Your task to perform on an android device: Go to settings Image 0: 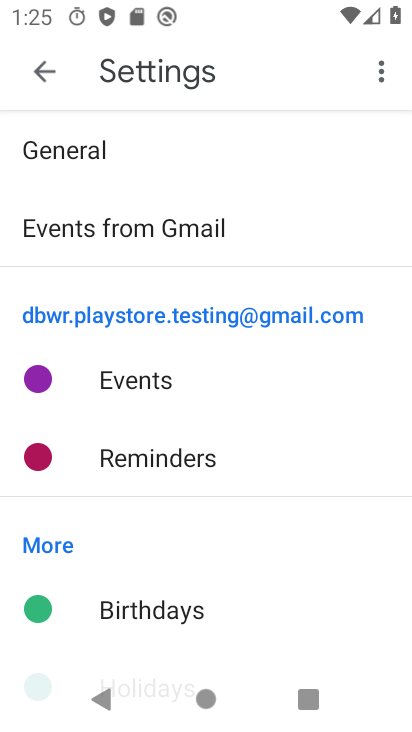
Step 0: click (400, 292)
Your task to perform on an android device: Go to settings Image 1: 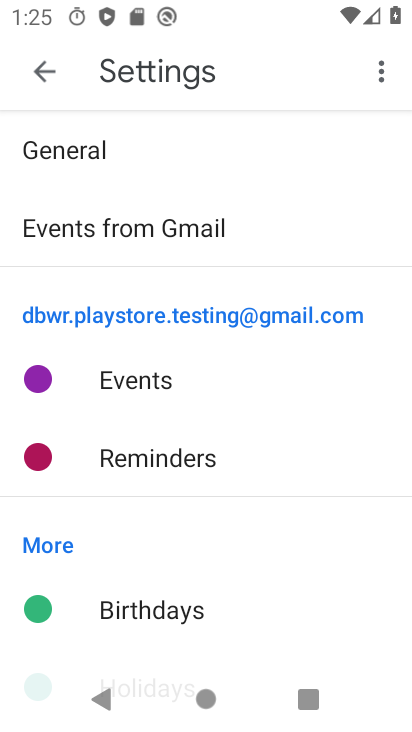
Step 1: press home button
Your task to perform on an android device: Go to settings Image 2: 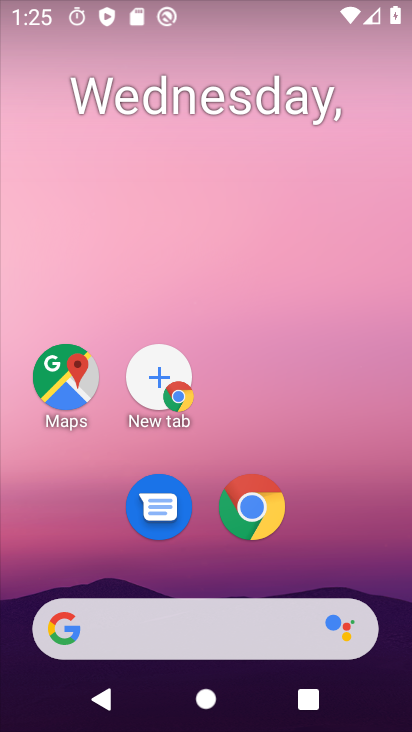
Step 2: drag from (364, 532) to (386, 105)
Your task to perform on an android device: Go to settings Image 3: 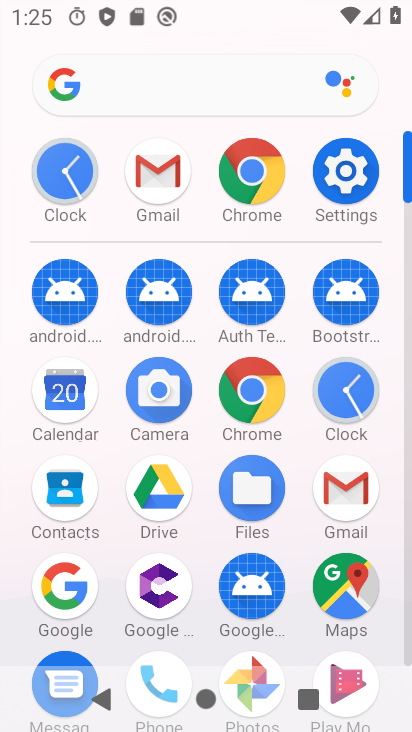
Step 3: click (335, 184)
Your task to perform on an android device: Go to settings Image 4: 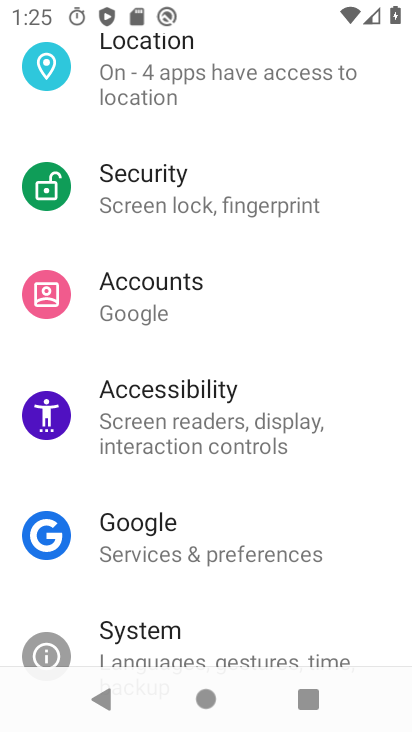
Step 4: task complete